Your task to perform on an android device: Open Android settings Image 0: 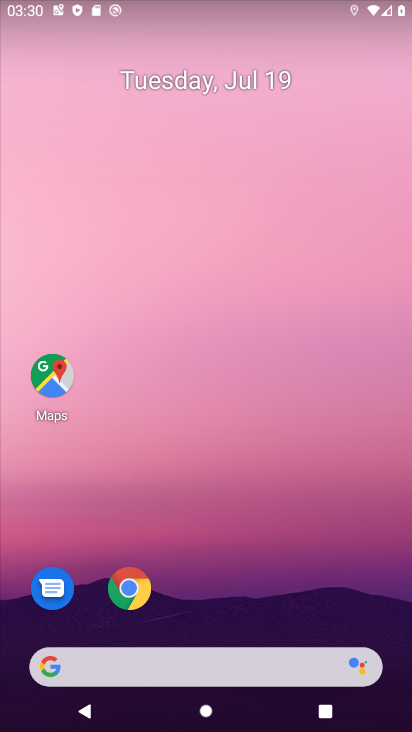
Step 0: drag from (245, 549) to (153, 139)
Your task to perform on an android device: Open Android settings Image 1: 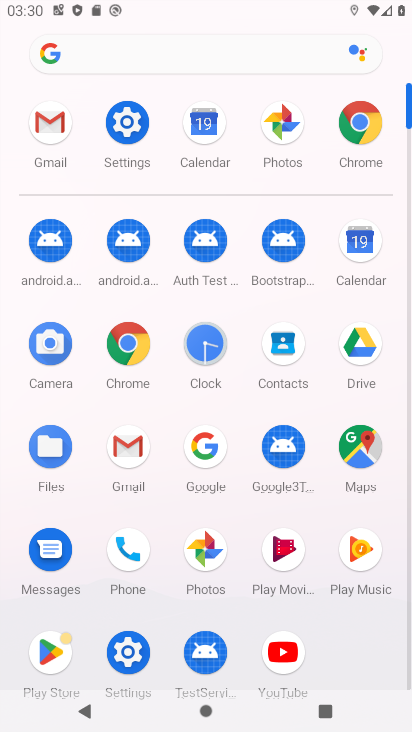
Step 1: click (125, 118)
Your task to perform on an android device: Open Android settings Image 2: 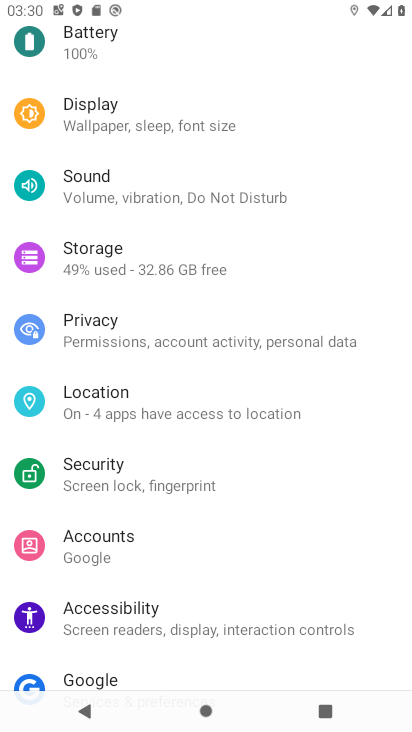
Step 2: task complete